Your task to perform on an android device: empty trash in google photos Image 0: 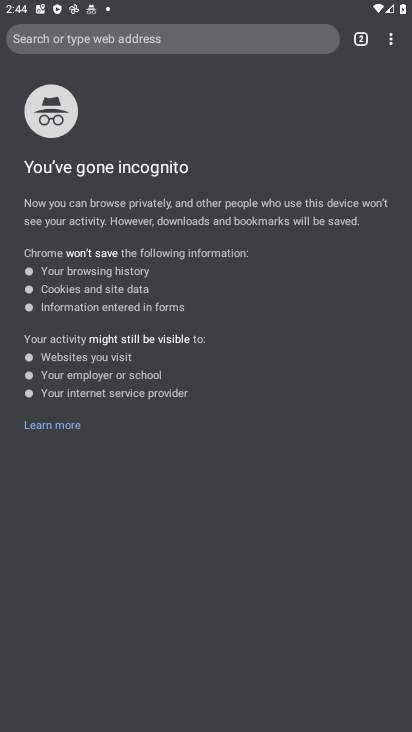
Step 0: press home button
Your task to perform on an android device: empty trash in google photos Image 1: 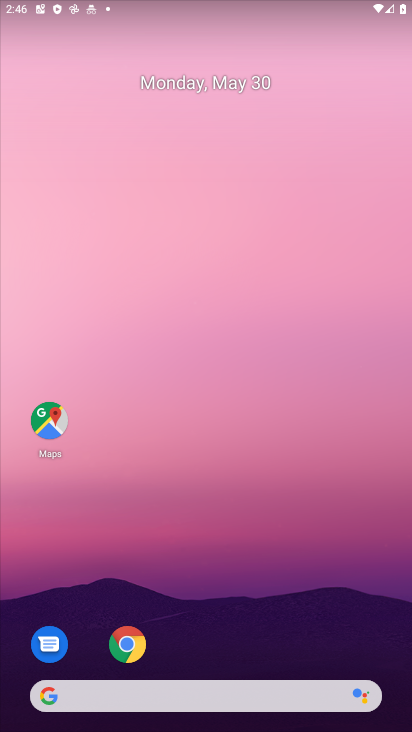
Step 1: drag from (207, 645) to (207, 259)
Your task to perform on an android device: empty trash in google photos Image 2: 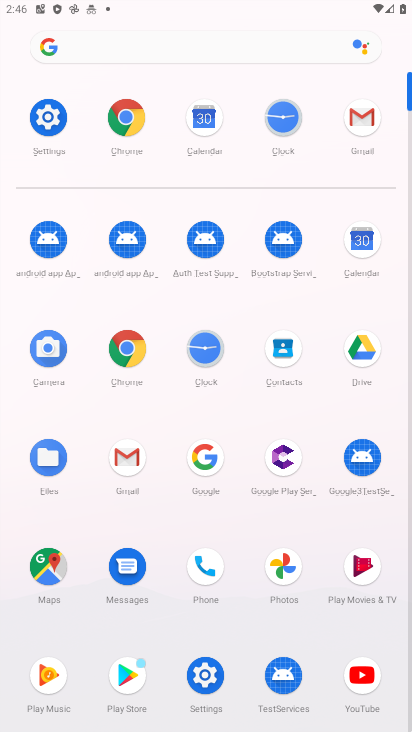
Step 2: click (286, 571)
Your task to perform on an android device: empty trash in google photos Image 3: 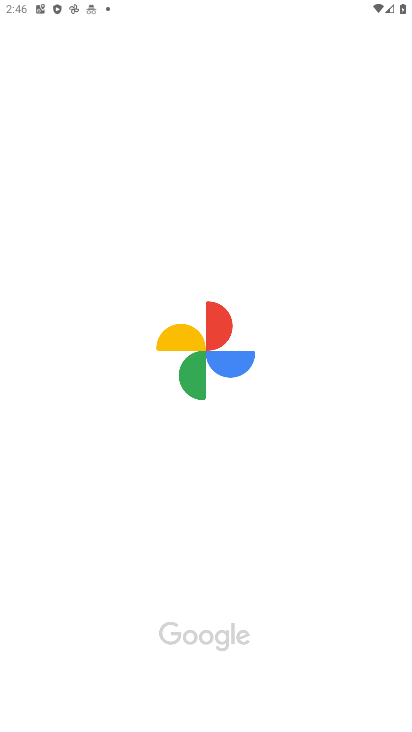
Step 3: task complete